Your task to perform on an android device: Go to privacy settings Image 0: 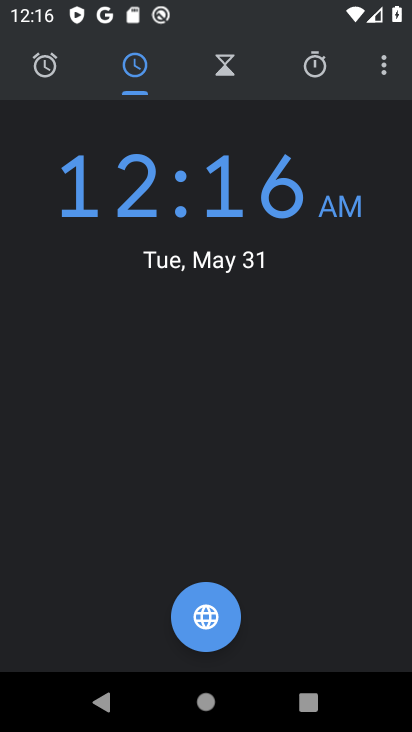
Step 0: press back button
Your task to perform on an android device: Go to privacy settings Image 1: 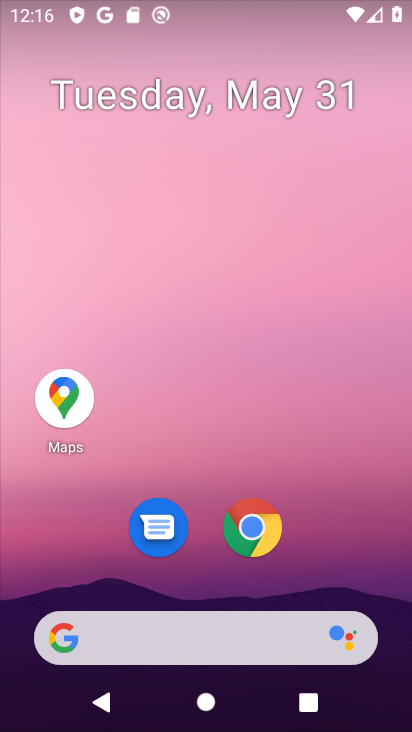
Step 1: drag from (238, 607) to (130, 32)
Your task to perform on an android device: Go to privacy settings Image 2: 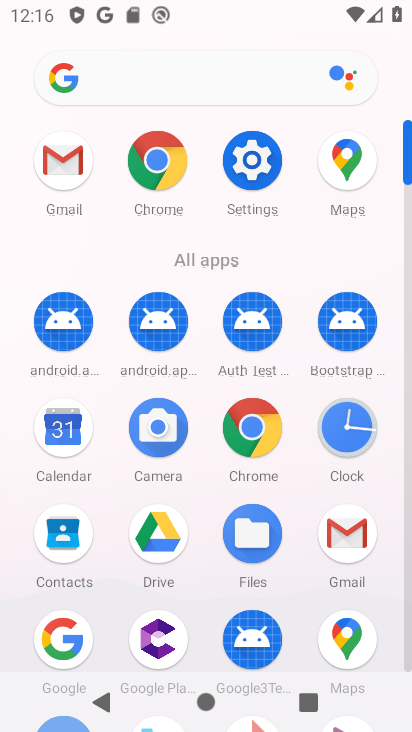
Step 2: click (241, 151)
Your task to perform on an android device: Go to privacy settings Image 3: 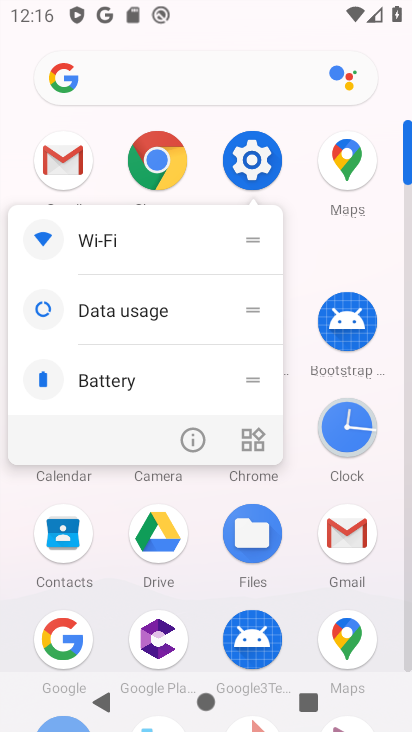
Step 3: click (253, 168)
Your task to perform on an android device: Go to privacy settings Image 4: 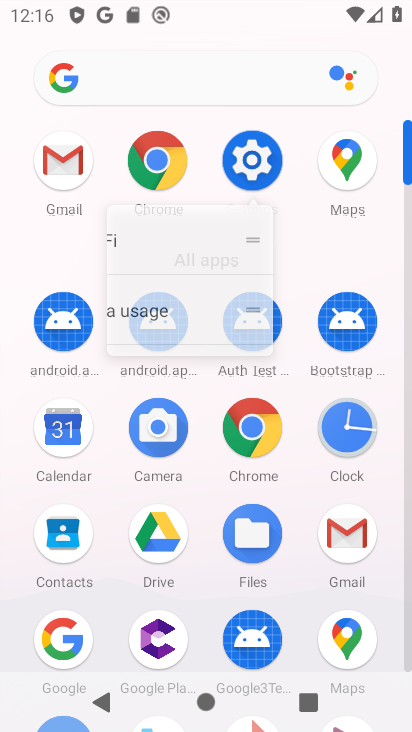
Step 4: click (253, 168)
Your task to perform on an android device: Go to privacy settings Image 5: 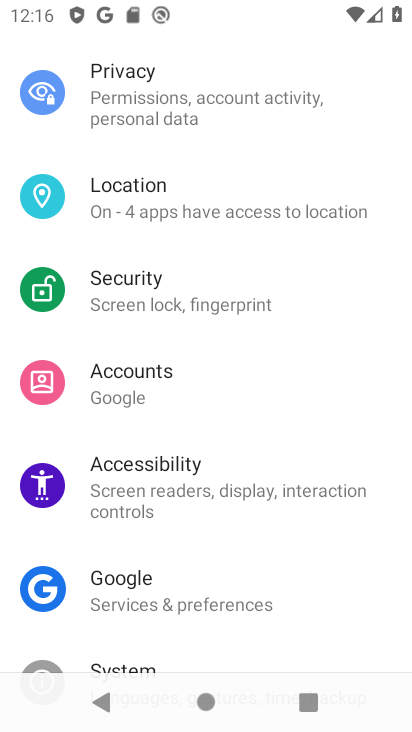
Step 5: click (135, 89)
Your task to perform on an android device: Go to privacy settings Image 6: 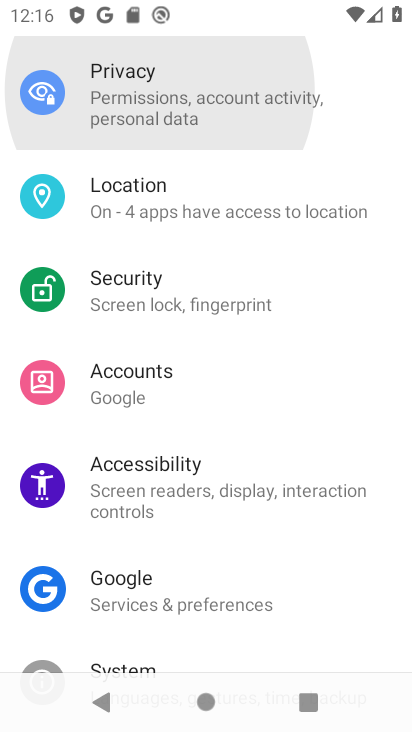
Step 6: click (136, 93)
Your task to perform on an android device: Go to privacy settings Image 7: 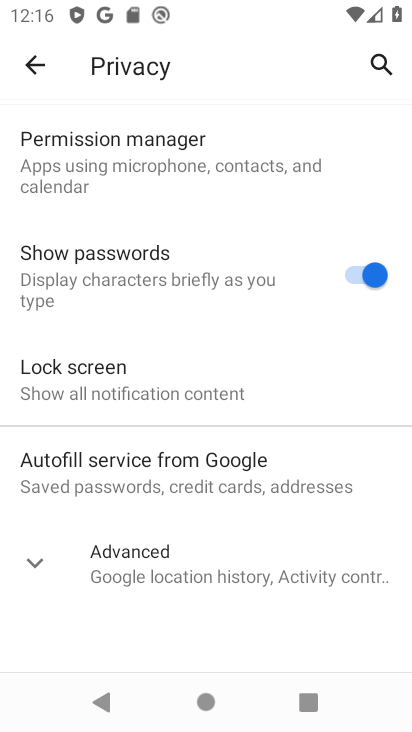
Step 7: task complete